Your task to perform on an android device: Open Google Chrome and open the bookmarks view Image 0: 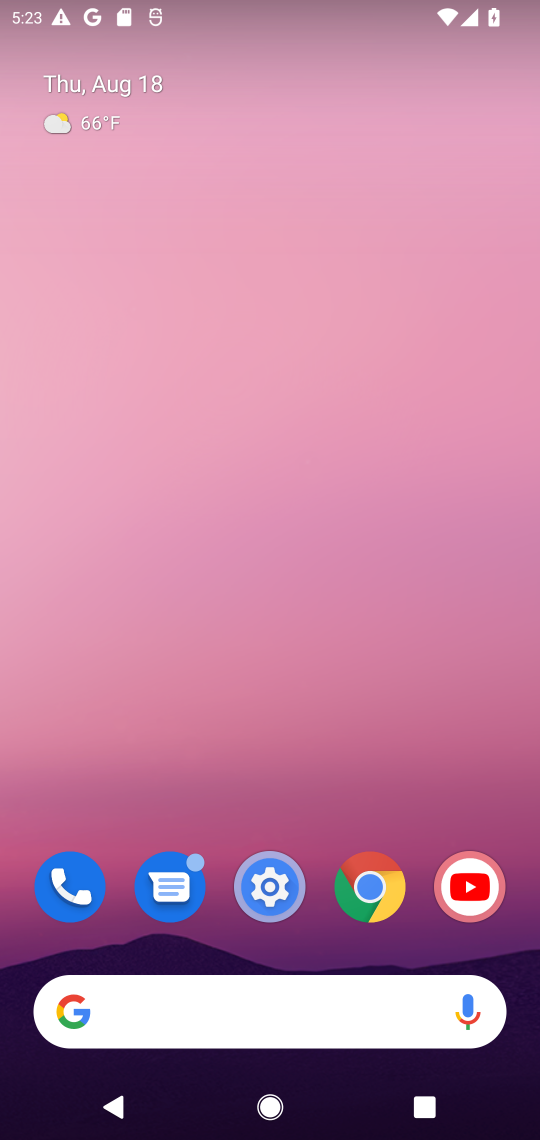
Step 0: drag from (312, 771) to (334, 88)
Your task to perform on an android device: Open Google Chrome and open the bookmarks view Image 1: 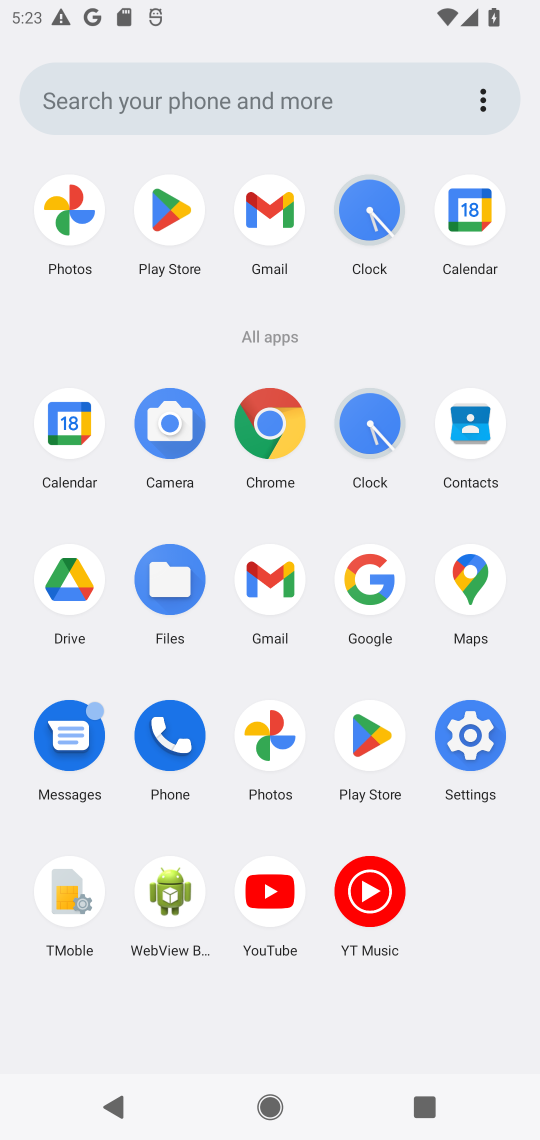
Step 1: task complete